Your task to perform on an android device: Check the weather Image 0: 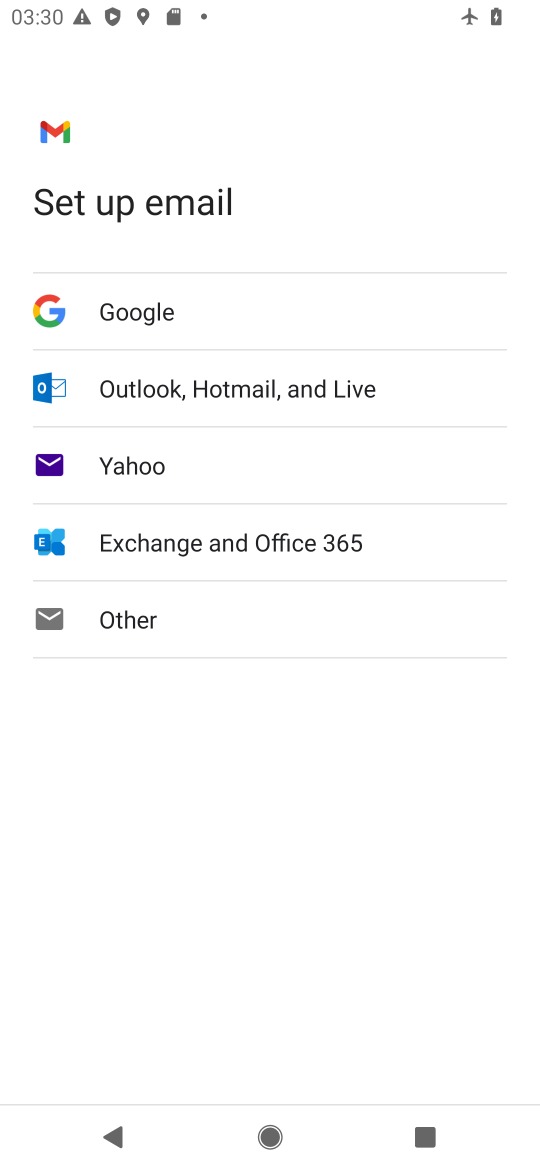
Step 0: press home button
Your task to perform on an android device: Check the weather Image 1: 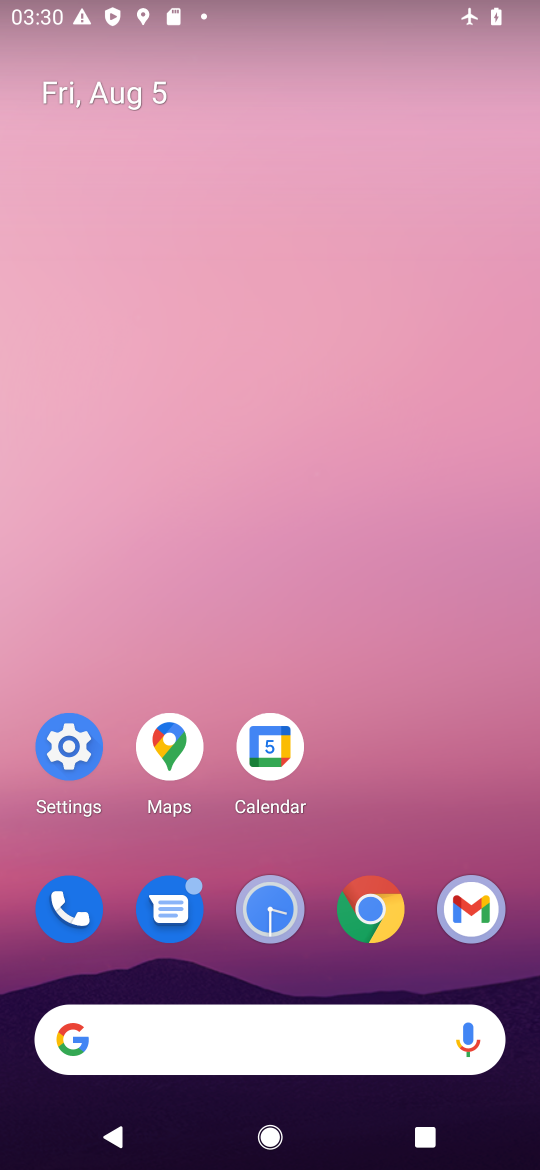
Step 1: click (224, 1018)
Your task to perform on an android device: Check the weather Image 2: 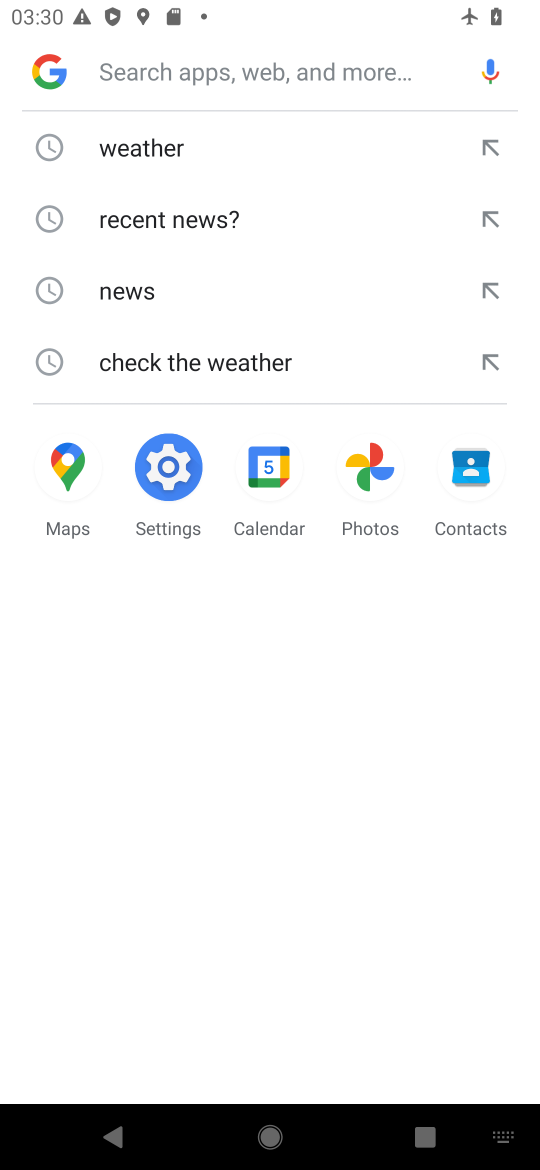
Step 2: click (136, 154)
Your task to perform on an android device: Check the weather Image 3: 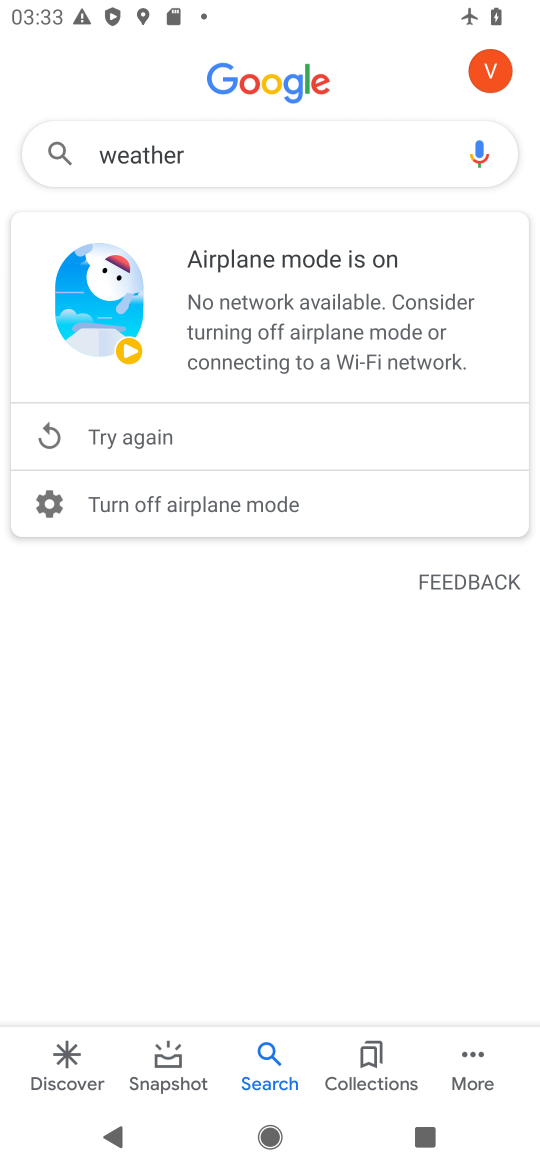
Step 3: task complete